Your task to perform on an android device: change notification settings in the gmail app Image 0: 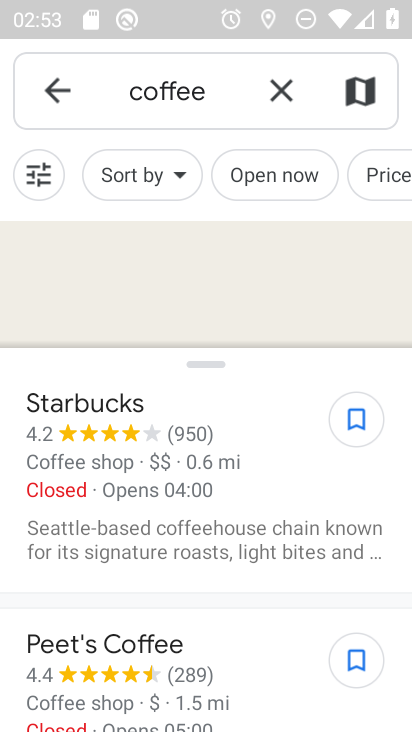
Step 0: press home button
Your task to perform on an android device: change notification settings in the gmail app Image 1: 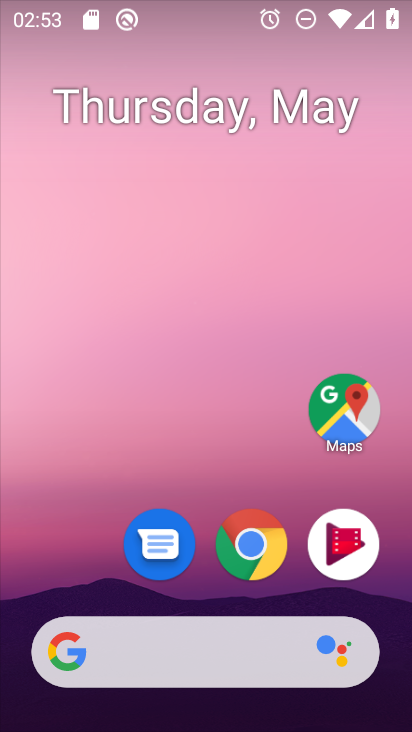
Step 1: drag from (197, 489) to (215, 137)
Your task to perform on an android device: change notification settings in the gmail app Image 2: 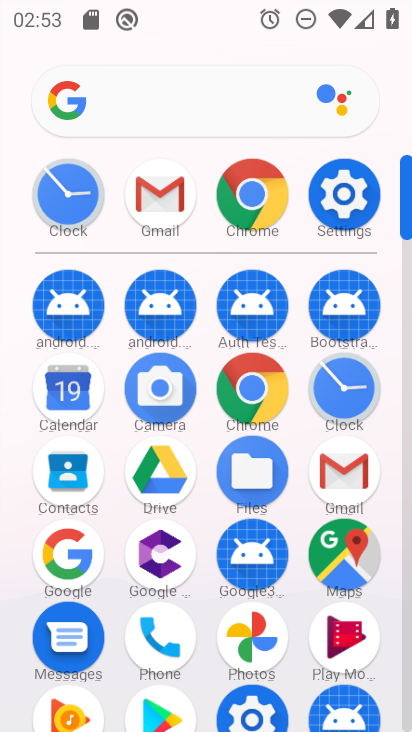
Step 2: drag from (202, 614) to (202, 422)
Your task to perform on an android device: change notification settings in the gmail app Image 3: 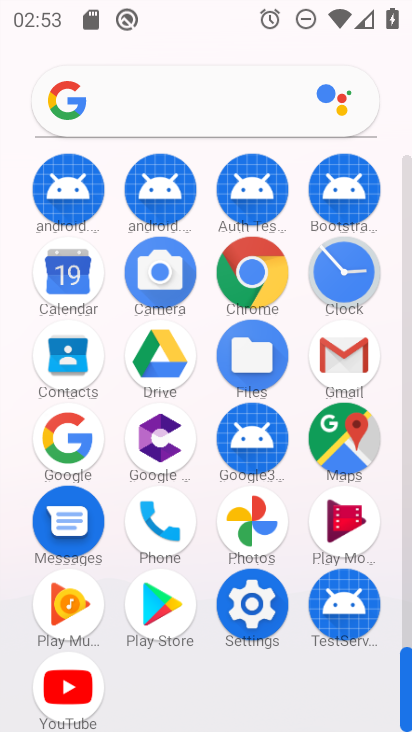
Step 3: drag from (194, 664) to (198, 446)
Your task to perform on an android device: change notification settings in the gmail app Image 4: 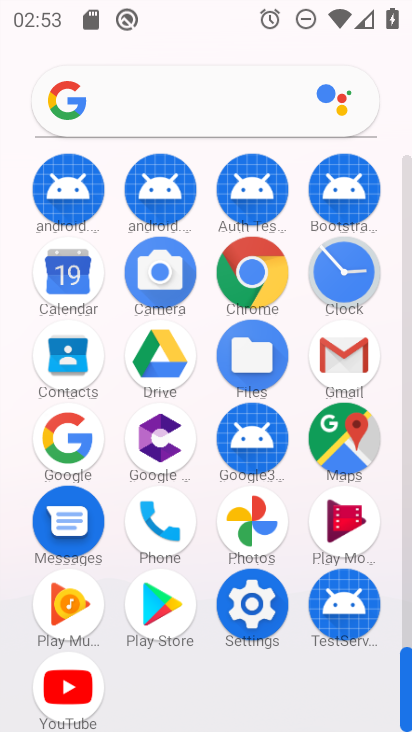
Step 4: drag from (197, 307) to (190, 460)
Your task to perform on an android device: change notification settings in the gmail app Image 5: 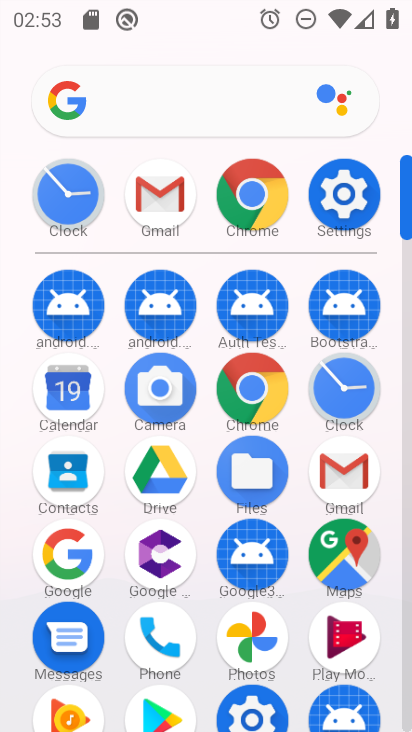
Step 5: click (203, 240)
Your task to perform on an android device: change notification settings in the gmail app Image 6: 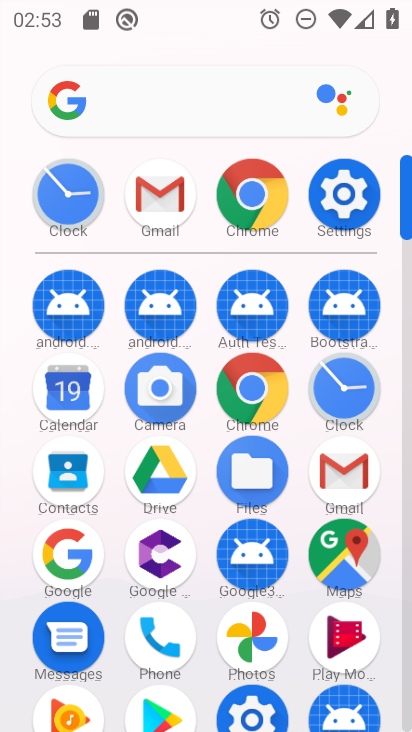
Step 6: click (348, 468)
Your task to perform on an android device: change notification settings in the gmail app Image 7: 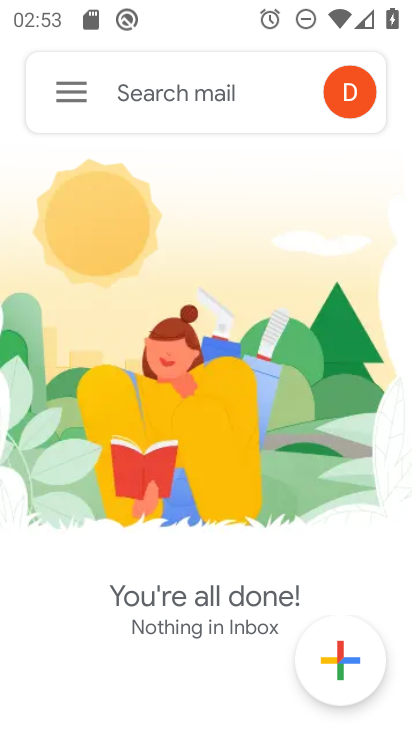
Step 7: click (63, 95)
Your task to perform on an android device: change notification settings in the gmail app Image 8: 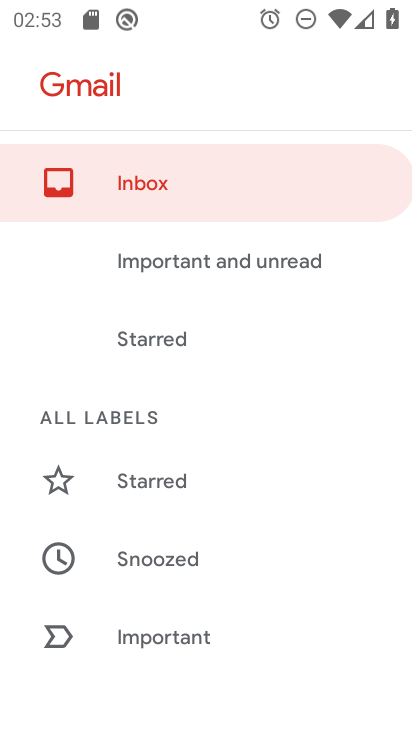
Step 8: drag from (270, 529) to (271, 423)
Your task to perform on an android device: change notification settings in the gmail app Image 9: 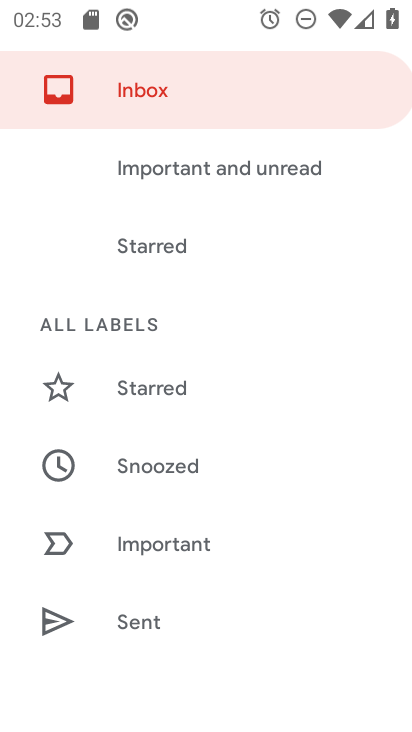
Step 9: drag from (299, 572) to (290, 417)
Your task to perform on an android device: change notification settings in the gmail app Image 10: 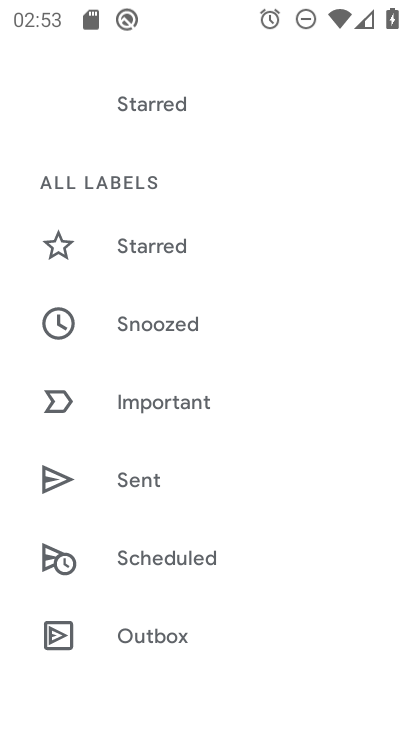
Step 10: drag from (285, 588) to (282, 450)
Your task to perform on an android device: change notification settings in the gmail app Image 11: 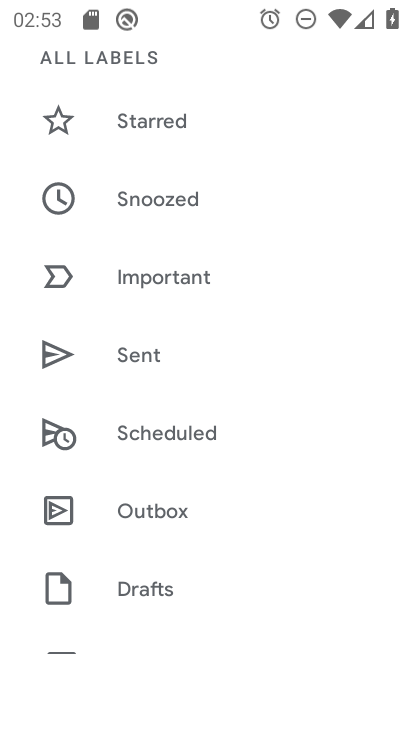
Step 11: drag from (279, 602) to (283, 458)
Your task to perform on an android device: change notification settings in the gmail app Image 12: 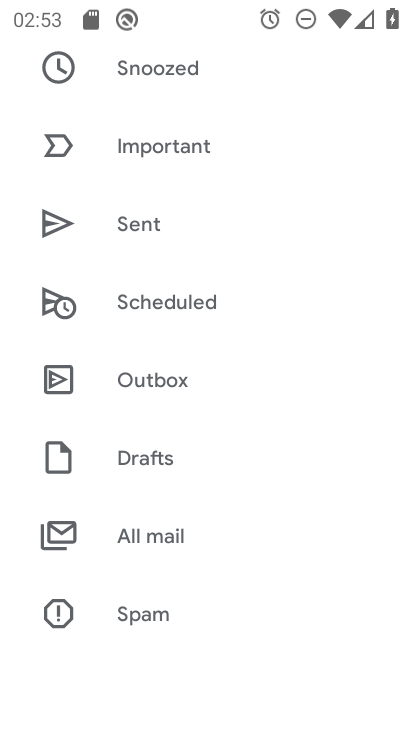
Step 12: drag from (315, 626) to (316, 444)
Your task to perform on an android device: change notification settings in the gmail app Image 13: 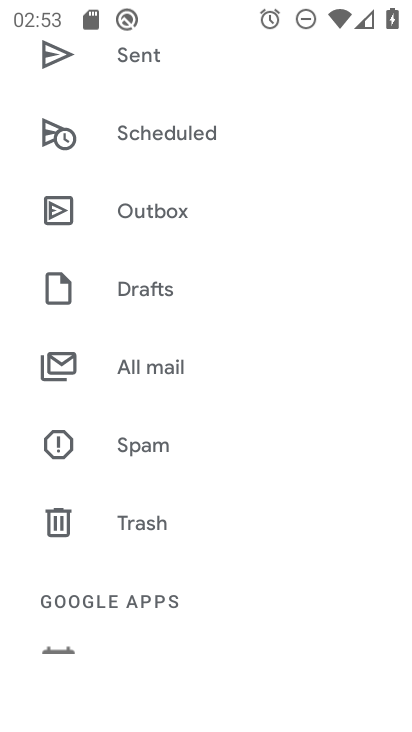
Step 13: drag from (320, 608) to (297, 446)
Your task to perform on an android device: change notification settings in the gmail app Image 14: 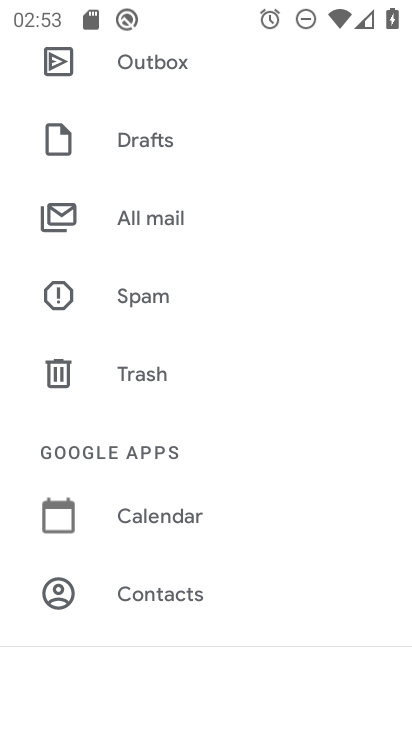
Step 14: drag from (295, 598) to (295, 438)
Your task to perform on an android device: change notification settings in the gmail app Image 15: 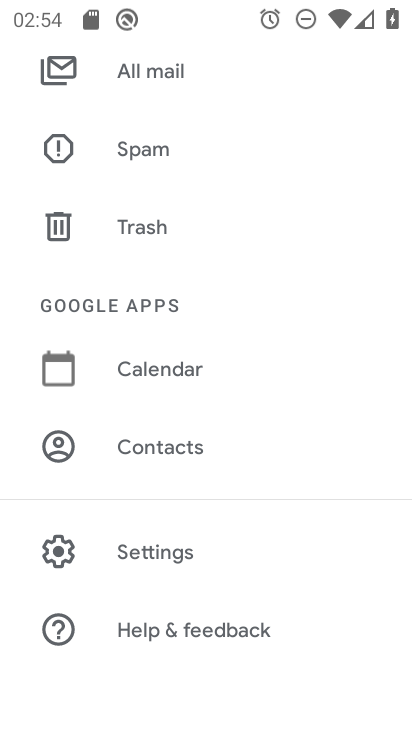
Step 15: click (186, 576)
Your task to perform on an android device: change notification settings in the gmail app Image 16: 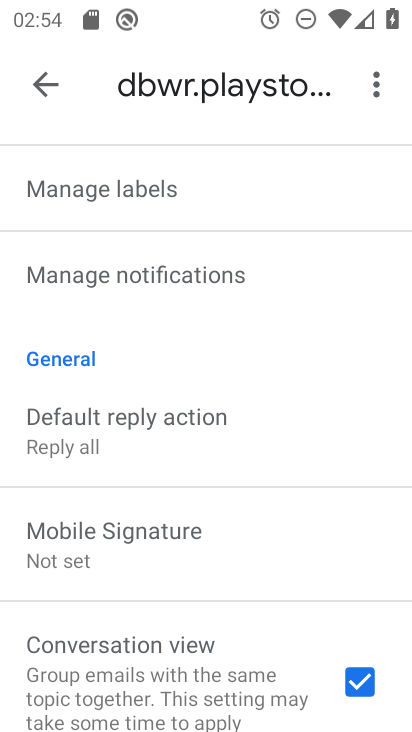
Step 16: drag from (251, 588) to (254, 501)
Your task to perform on an android device: change notification settings in the gmail app Image 17: 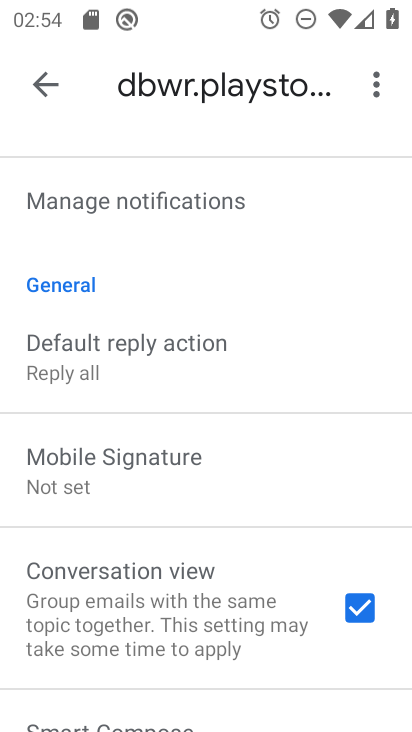
Step 17: drag from (271, 241) to (272, 429)
Your task to perform on an android device: change notification settings in the gmail app Image 18: 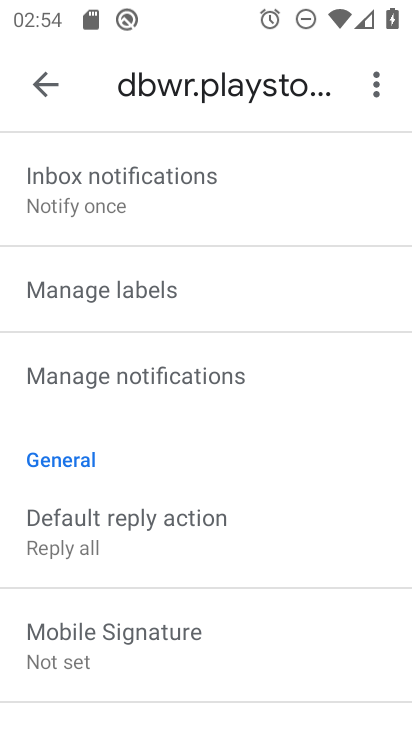
Step 18: click (228, 360)
Your task to perform on an android device: change notification settings in the gmail app Image 19: 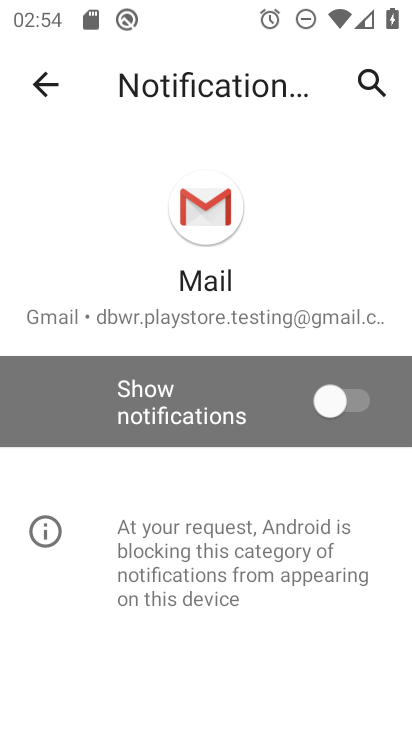
Step 19: click (329, 401)
Your task to perform on an android device: change notification settings in the gmail app Image 20: 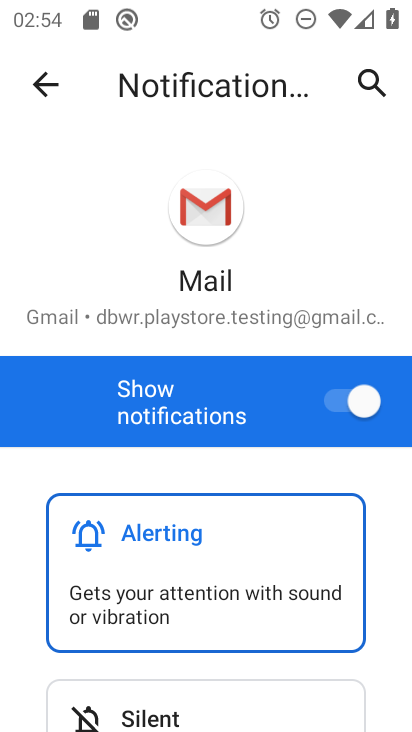
Step 20: task complete